Your task to perform on an android device: see creations saved in the google photos Image 0: 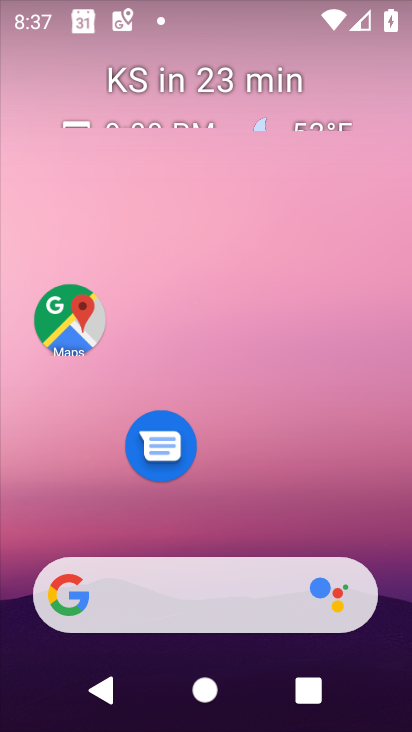
Step 0: drag from (207, 536) to (207, 0)
Your task to perform on an android device: see creations saved in the google photos Image 1: 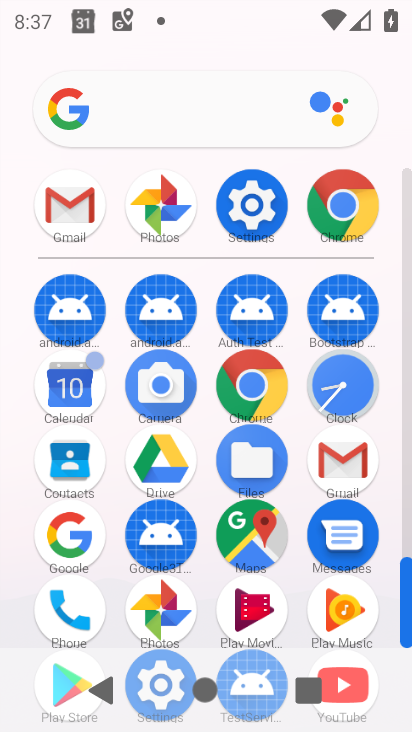
Step 1: click (154, 613)
Your task to perform on an android device: see creations saved in the google photos Image 2: 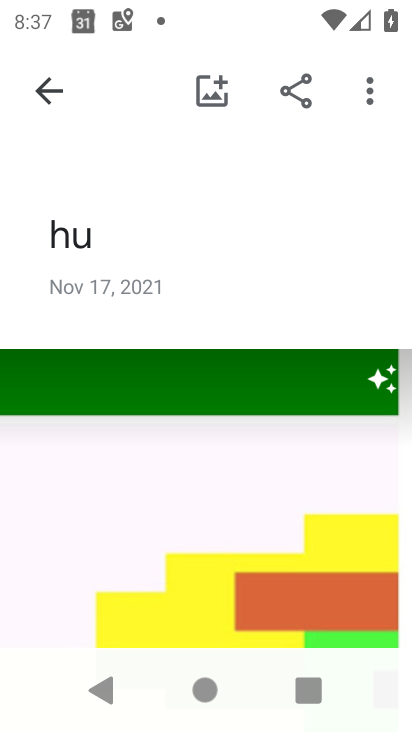
Step 2: task complete